Your task to perform on an android device: turn on showing notifications on the lock screen Image 0: 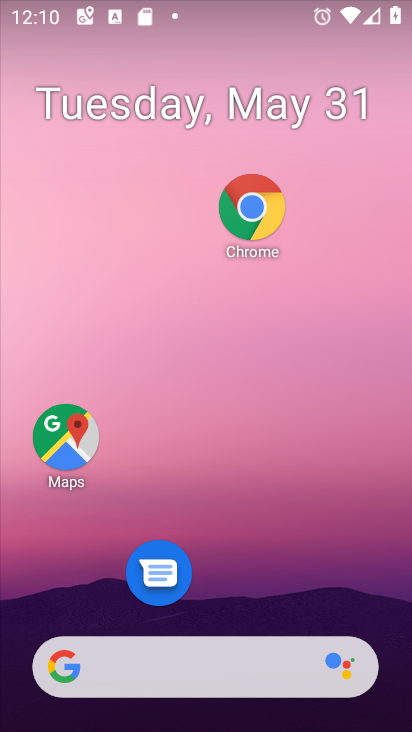
Step 0: drag from (218, 636) to (228, 96)
Your task to perform on an android device: turn on showing notifications on the lock screen Image 1: 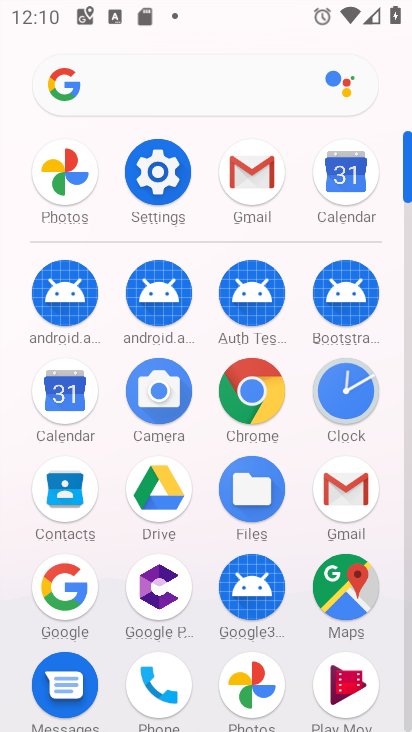
Step 1: click (155, 186)
Your task to perform on an android device: turn on showing notifications on the lock screen Image 2: 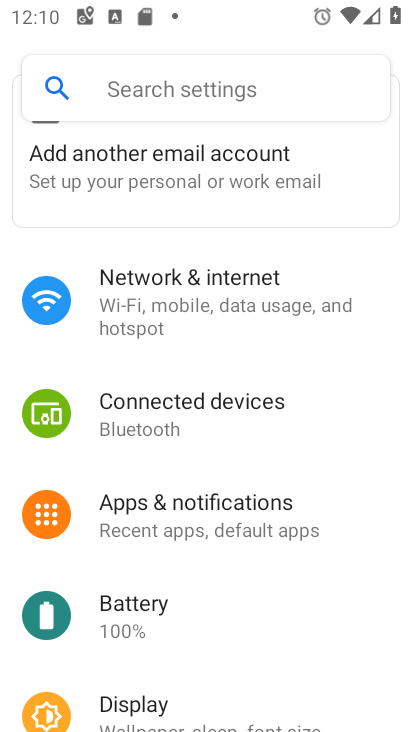
Step 2: click (168, 516)
Your task to perform on an android device: turn on showing notifications on the lock screen Image 3: 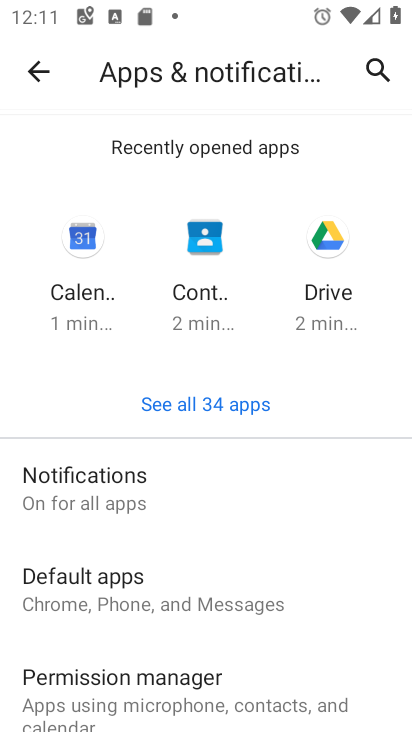
Step 3: click (150, 487)
Your task to perform on an android device: turn on showing notifications on the lock screen Image 4: 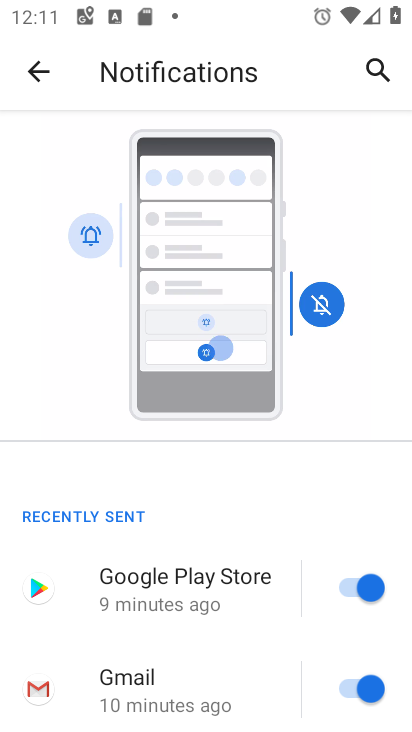
Step 4: drag from (173, 583) to (226, 186)
Your task to perform on an android device: turn on showing notifications on the lock screen Image 5: 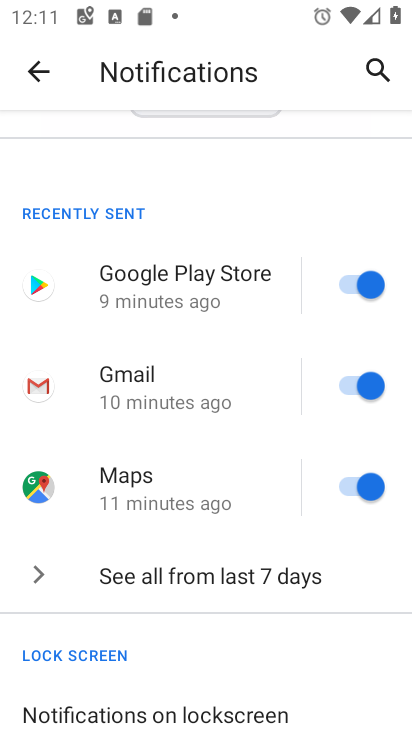
Step 5: drag from (150, 623) to (163, 260)
Your task to perform on an android device: turn on showing notifications on the lock screen Image 6: 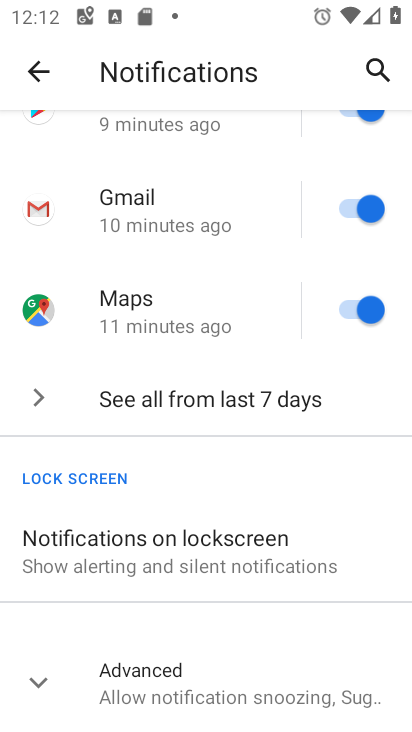
Step 6: click (207, 560)
Your task to perform on an android device: turn on showing notifications on the lock screen Image 7: 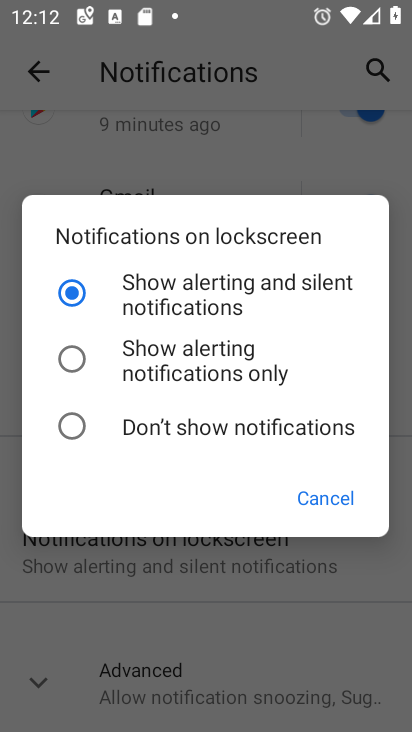
Step 7: task complete